Your task to perform on an android device: Open the calendar and show me this week's events? Image 0: 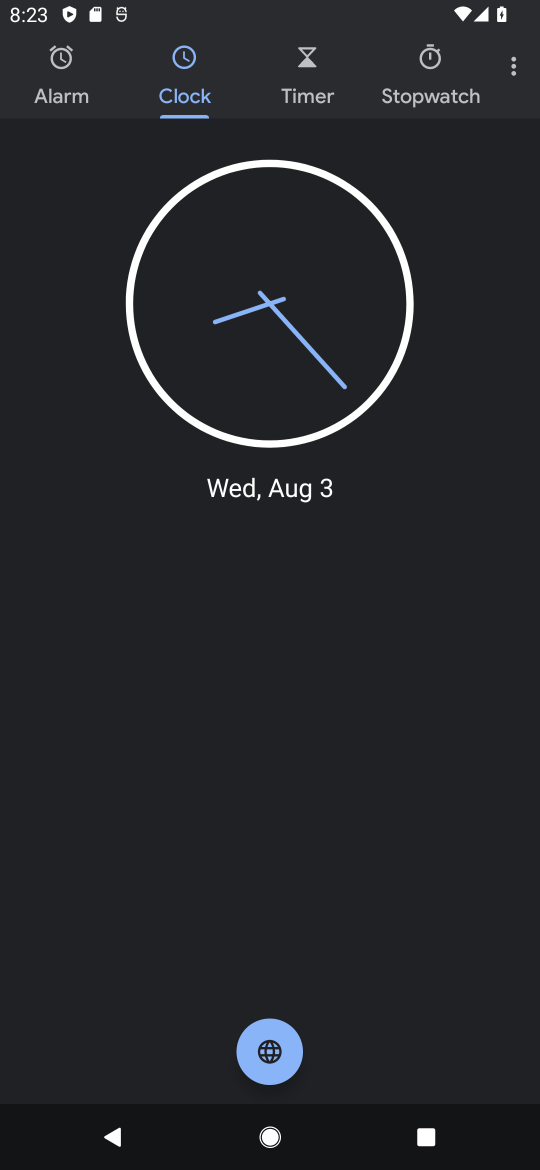
Step 0: press home button
Your task to perform on an android device: Open the calendar and show me this week's events? Image 1: 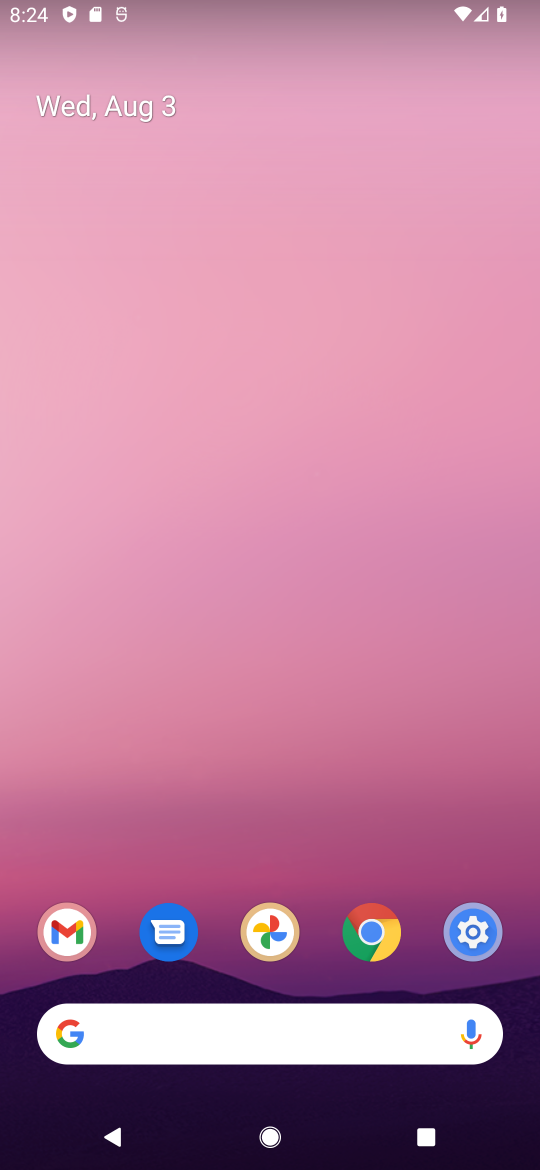
Step 1: drag from (260, 1007) to (260, 120)
Your task to perform on an android device: Open the calendar and show me this week's events? Image 2: 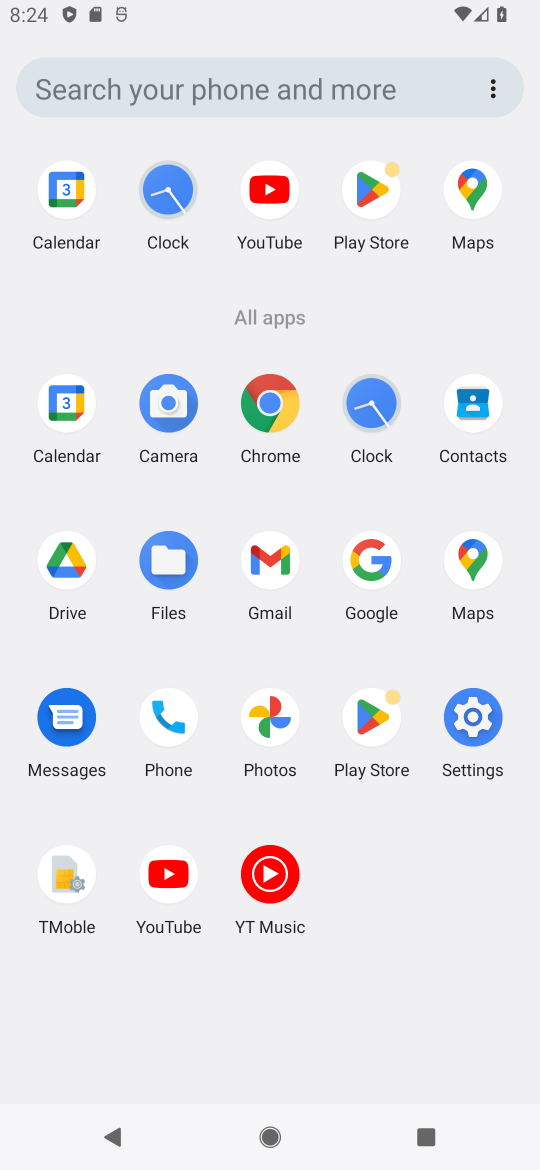
Step 2: click (42, 196)
Your task to perform on an android device: Open the calendar and show me this week's events? Image 3: 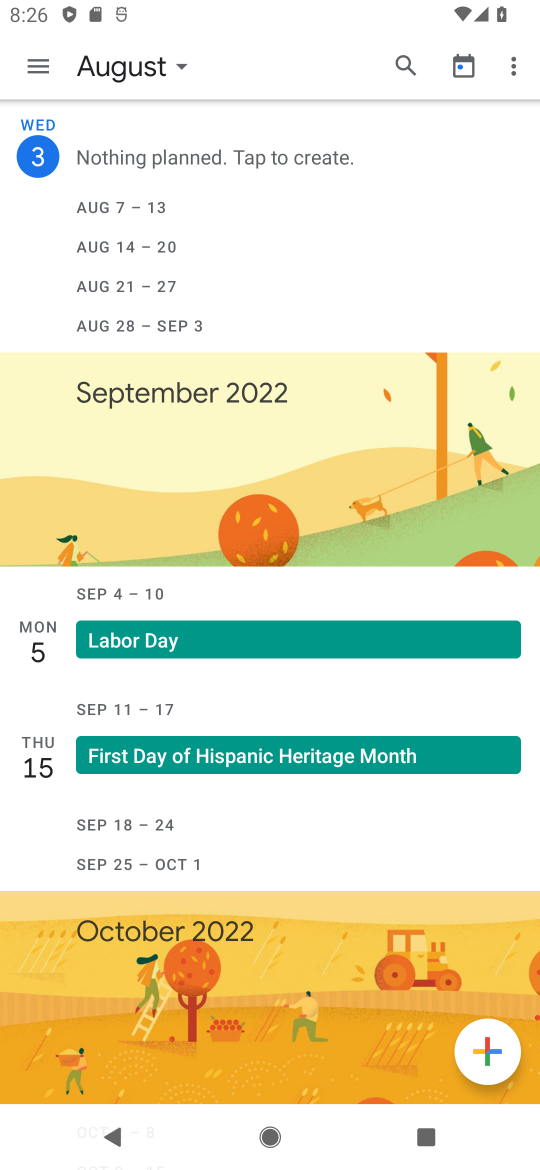
Step 3: click (177, 71)
Your task to perform on an android device: Open the calendar and show me this week's events? Image 4: 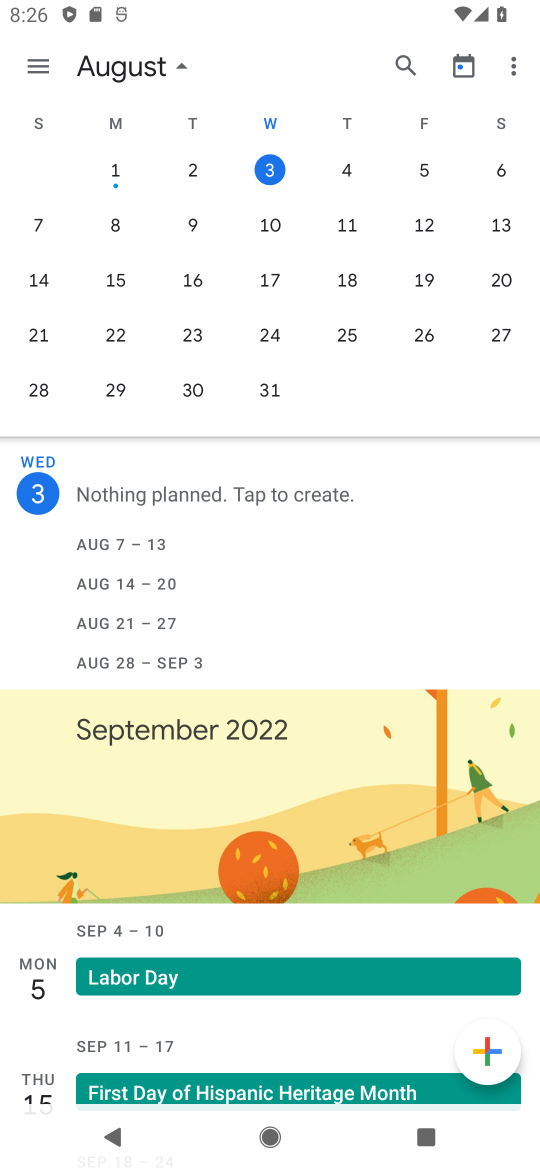
Step 4: click (344, 171)
Your task to perform on an android device: Open the calendar and show me this week's events? Image 5: 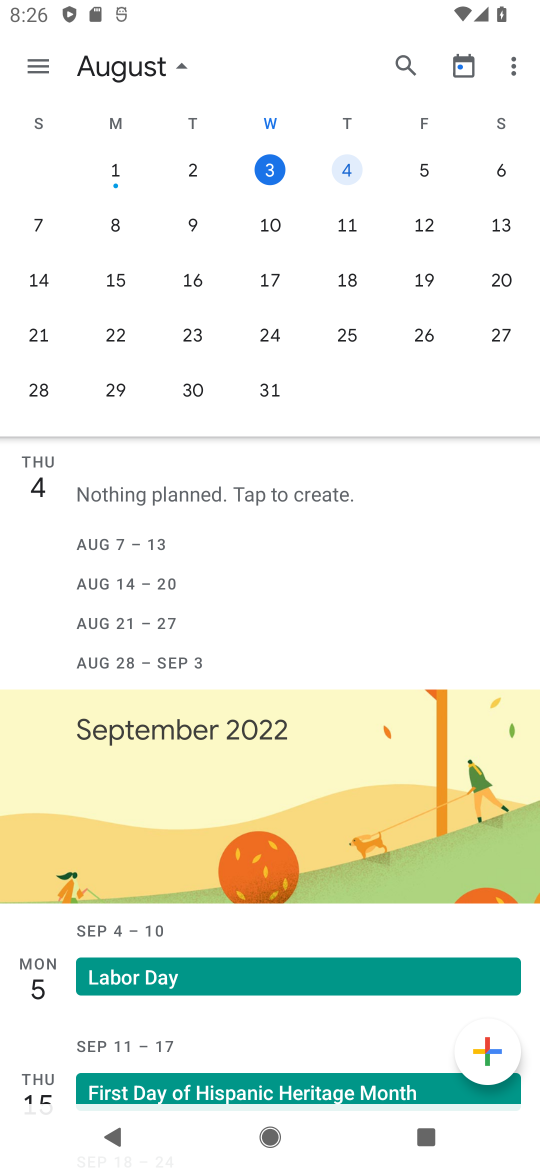
Step 5: click (44, 71)
Your task to perform on an android device: Open the calendar and show me this week's events? Image 6: 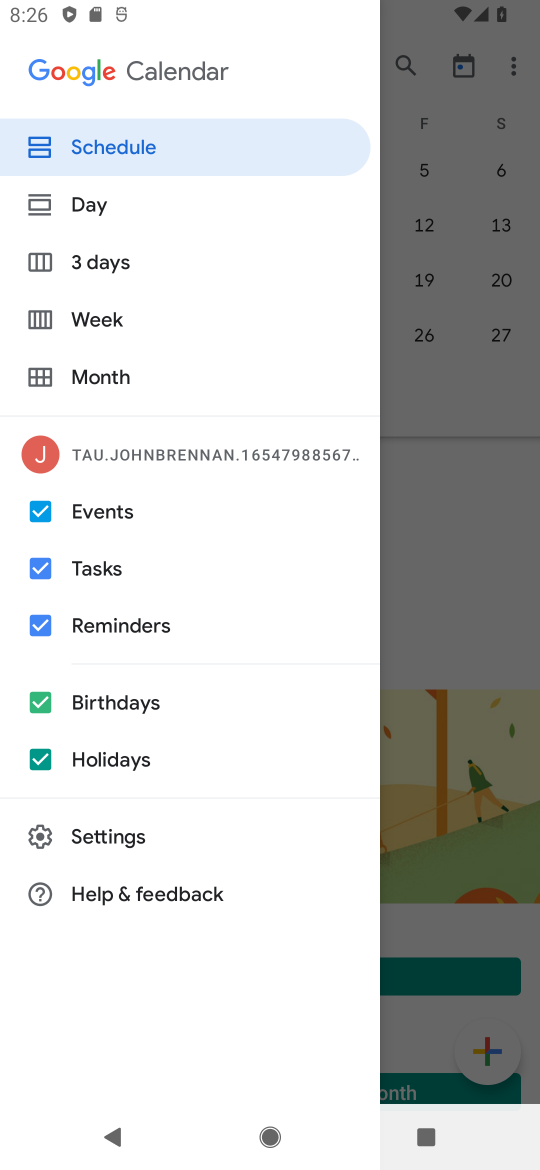
Step 6: click (100, 497)
Your task to perform on an android device: Open the calendar and show me this week's events? Image 7: 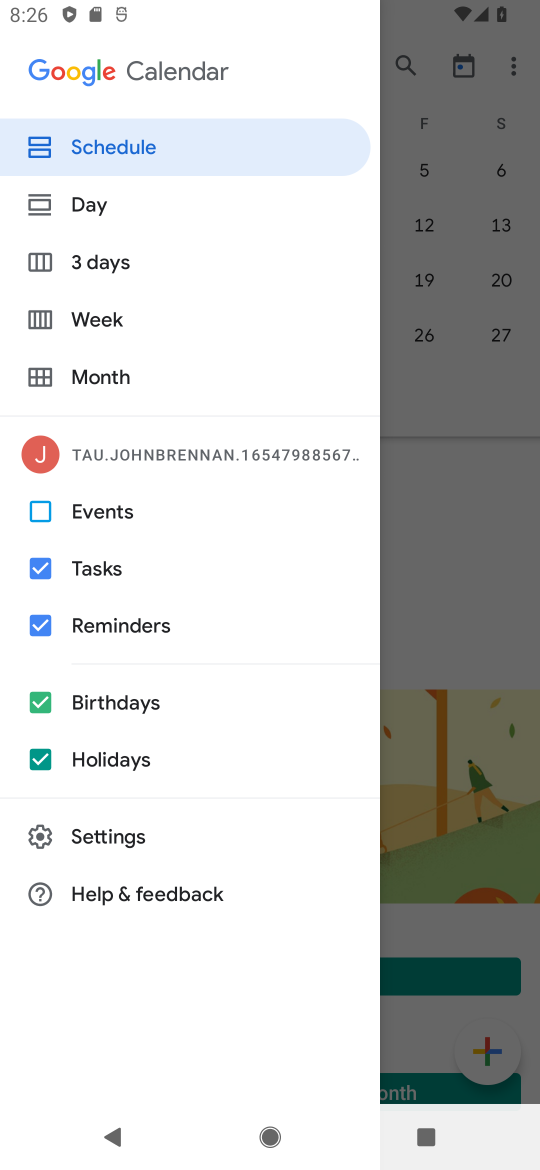
Step 7: click (75, 511)
Your task to perform on an android device: Open the calendar and show me this week's events? Image 8: 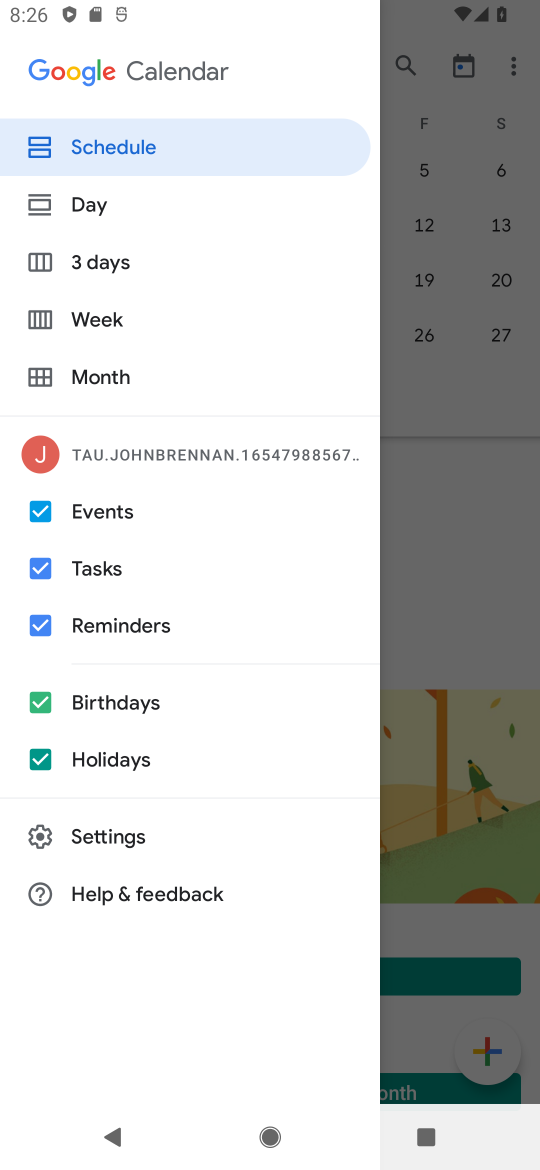
Step 8: task complete